Your task to perform on an android device: turn off improve location accuracy Image 0: 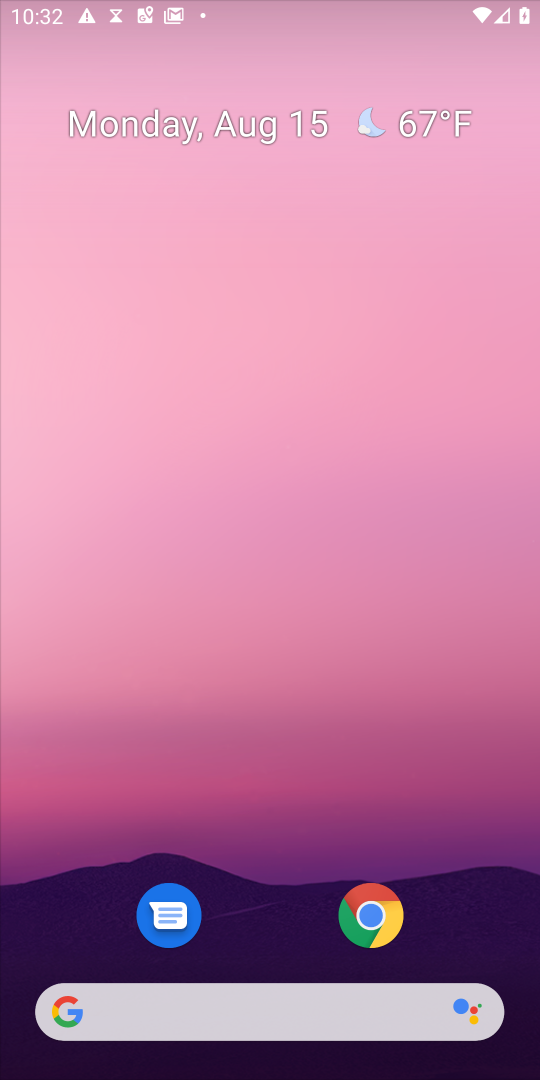
Step 0: press home button
Your task to perform on an android device: turn off improve location accuracy Image 1: 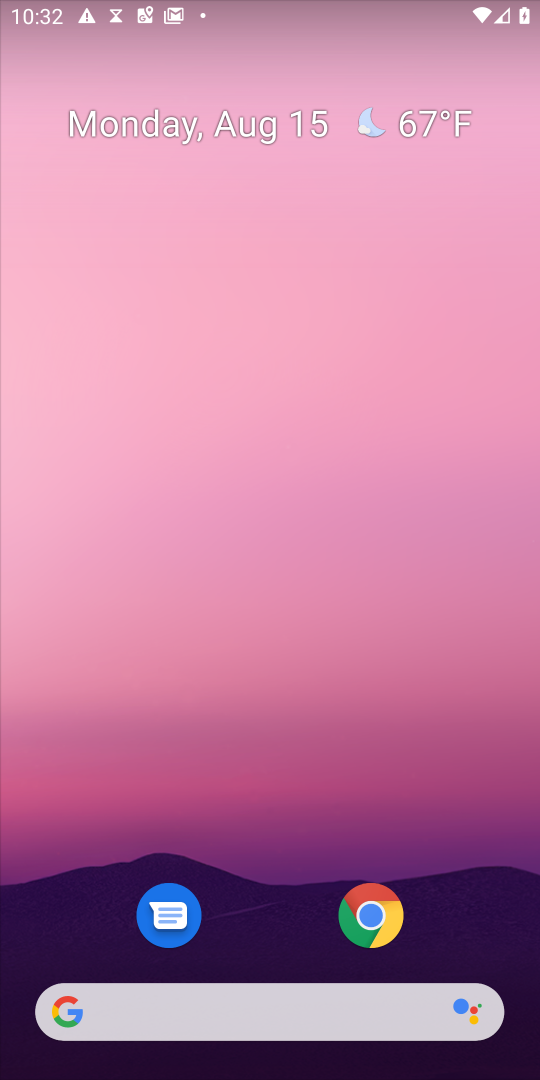
Step 1: press home button
Your task to perform on an android device: turn off improve location accuracy Image 2: 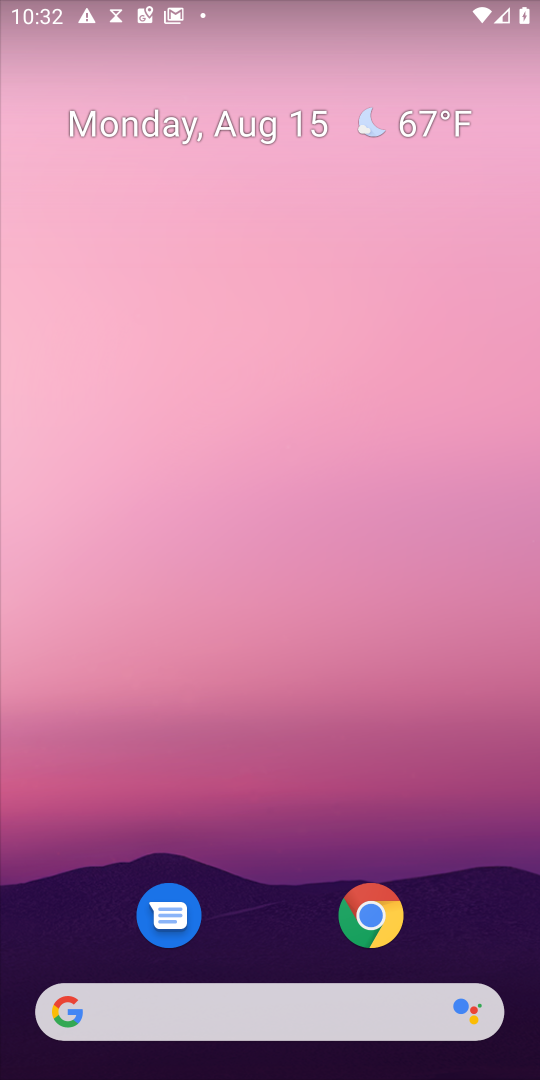
Step 2: drag from (273, 906) to (243, 59)
Your task to perform on an android device: turn off improve location accuracy Image 3: 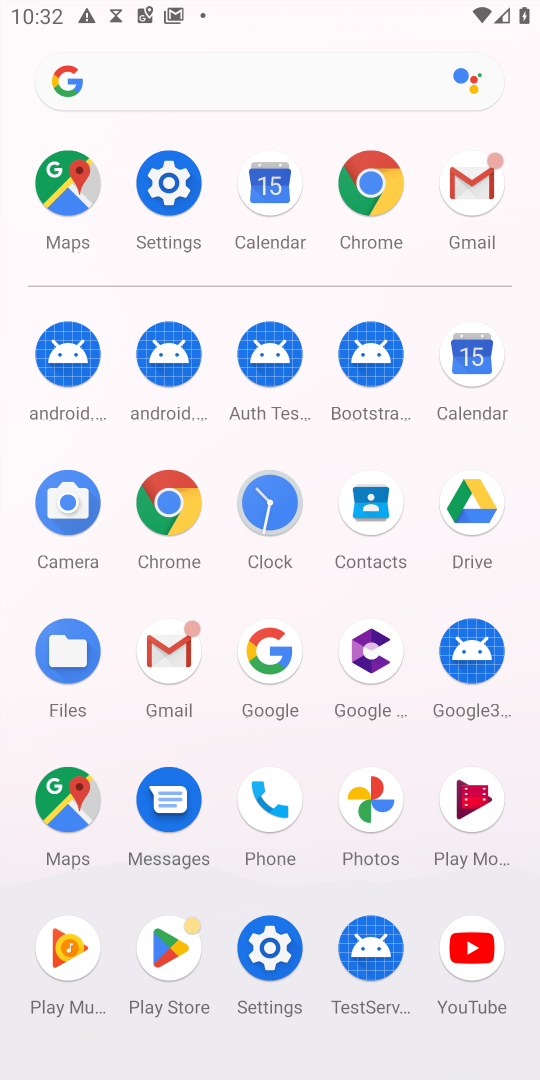
Step 3: click (182, 194)
Your task to perform on an android device: turn off improve location accuracy Image 4: 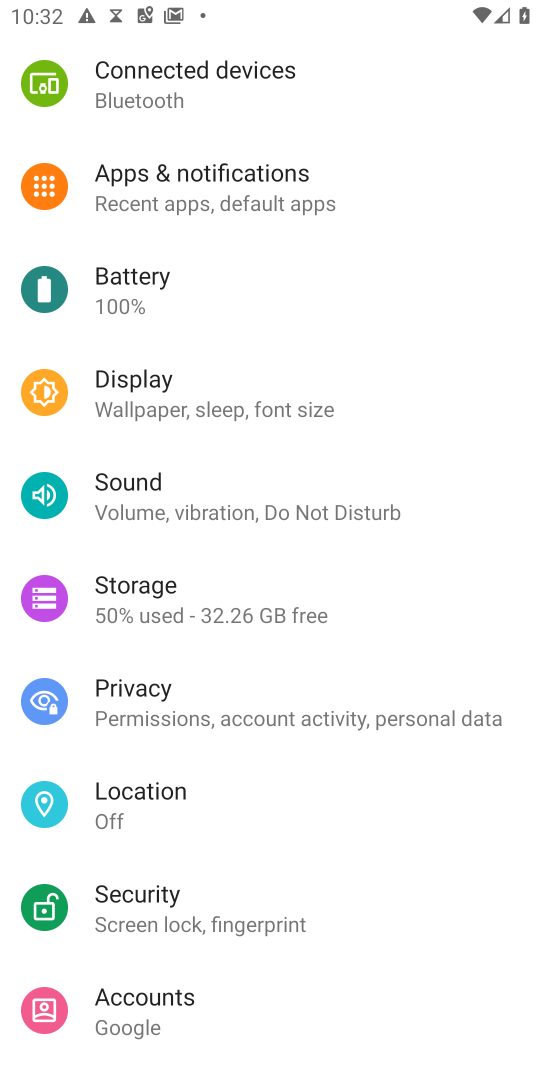
Step 4: click (173, 801)
Your task to perform on an android device: turn off improve location accuracy Image 5: 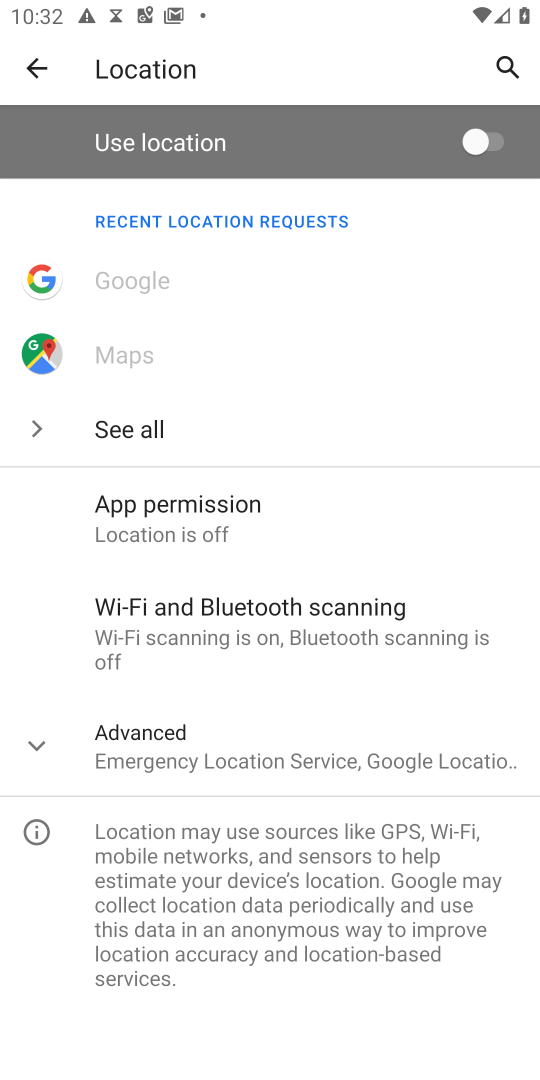
Step 5: click (41, 738)
Your task to perform on an android device: turn off improve location accuracy Image 6: 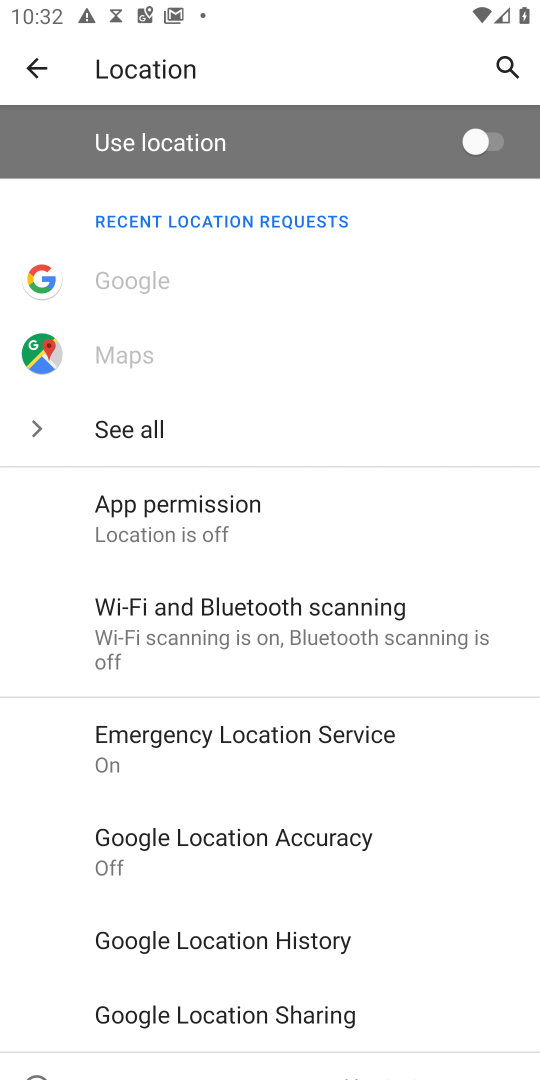
Step 6: click (272, 847)
Your task to perform on an android device: turn off improve location accuracy Image 7: 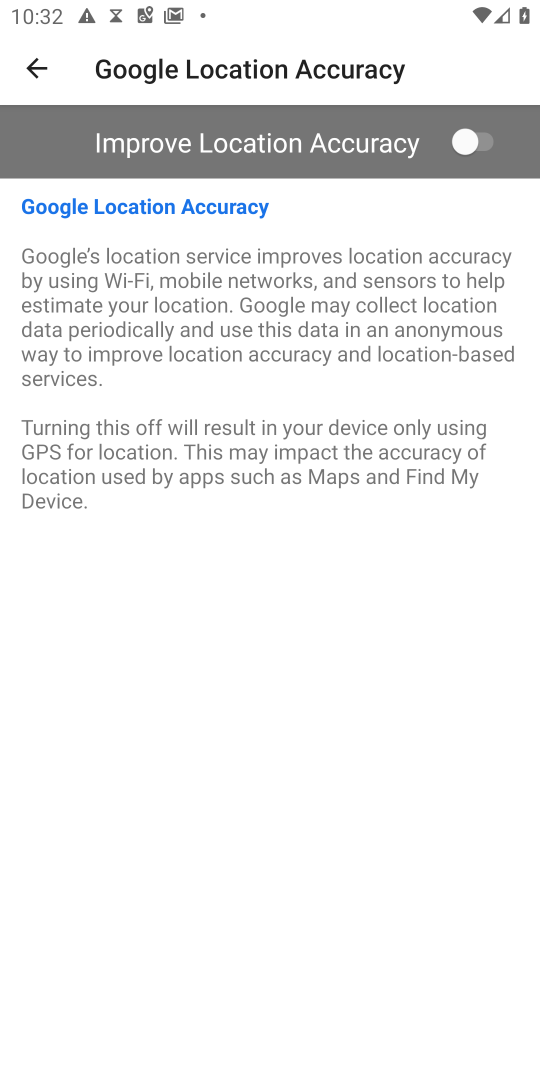
Step 7: task complete